Your task to perform on an android device: Clear the cart on target.com. Search for macbook pro on target.com, select the first entry, and add it to the cart. Image 0: 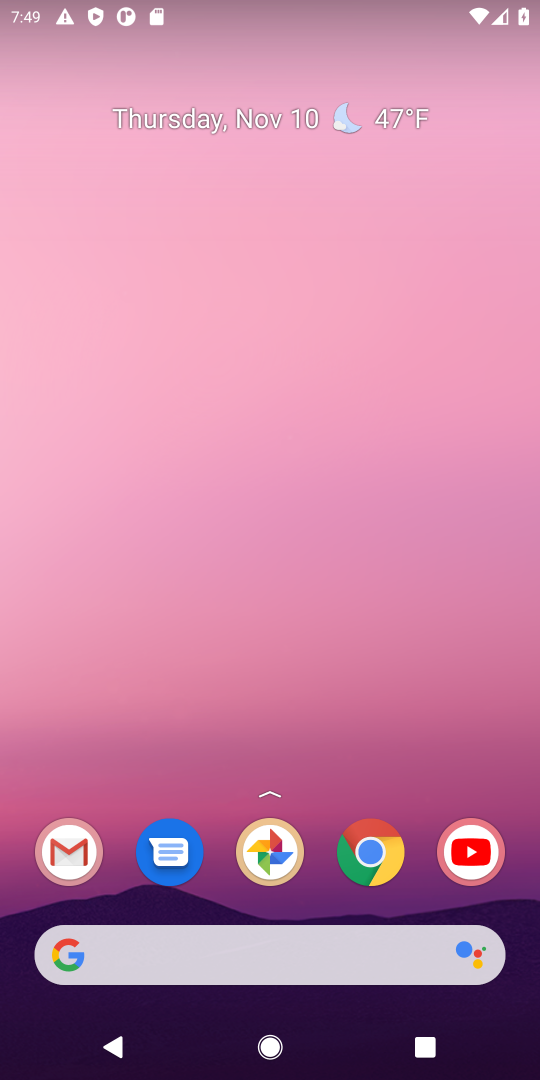
Step 0: click (367, 850)
Your task to perform on an android device: Clear the cart on target.com. Search for macbook pro on target.com, select the first entry, and add it to the cart. Image 1: 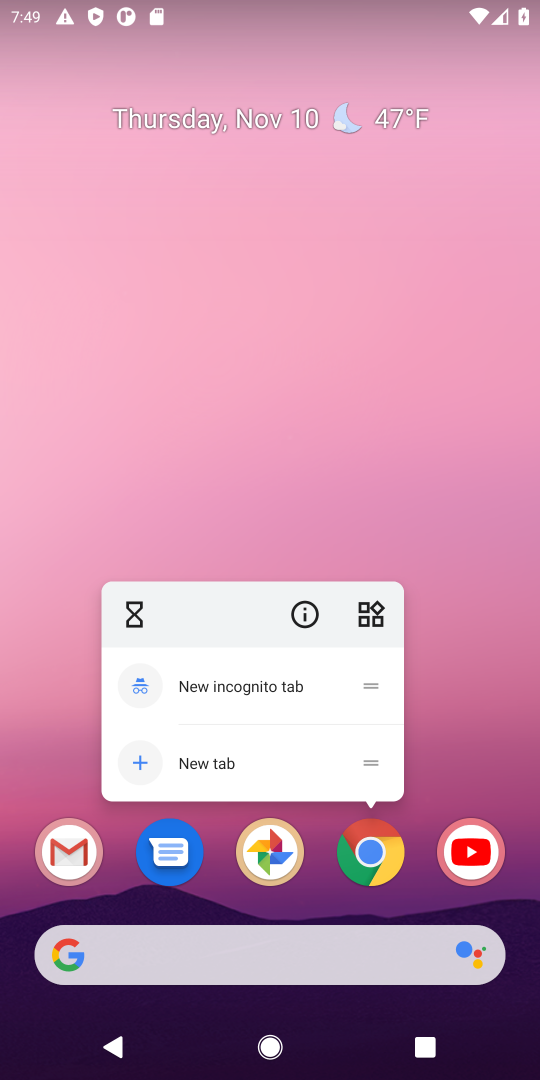
Step 1: click (355, 847)
Your task to perform on an android device: Clear the cart on target.com. Search for macbook pro on target.com, select the first entry, and add it to the cart. Image 2: 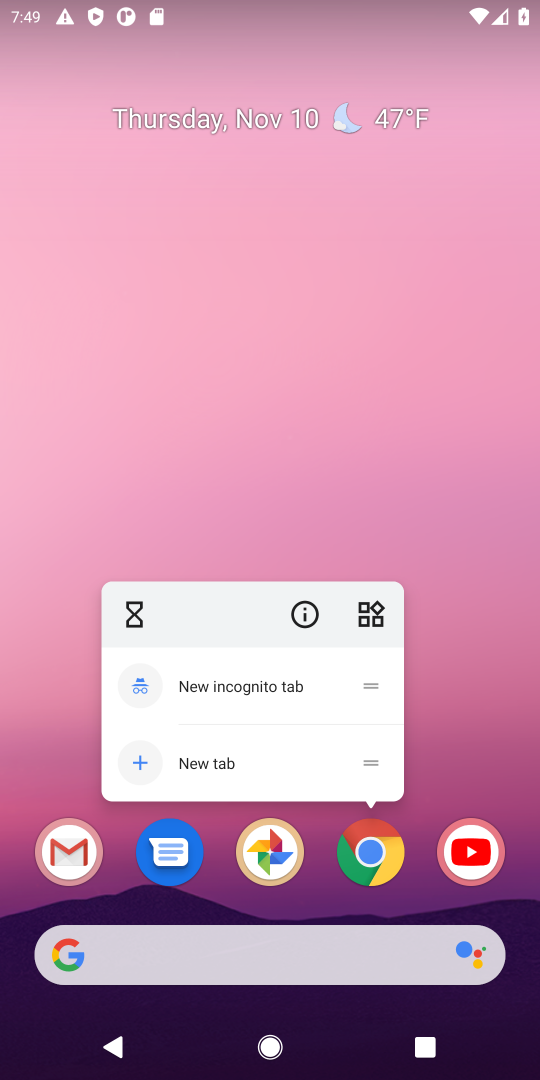
Step 2: click (372, 851)
Your task to perform on an android device: Clear the cart on target.com. Search for macbook pro on target.com, select the first entry, and add it to the cart. Image 3: 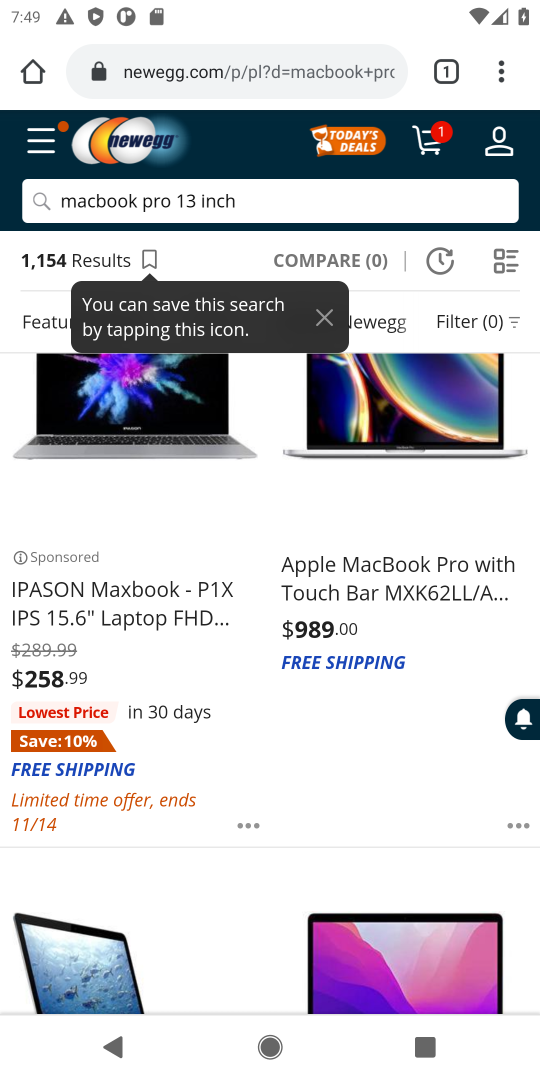
Step 3: click (284, 67)
Your task to perform on an android device: Clear the cart on target.com. Search for macbook pro on target.com, select the first entry, and add it to the cart. Image 4: 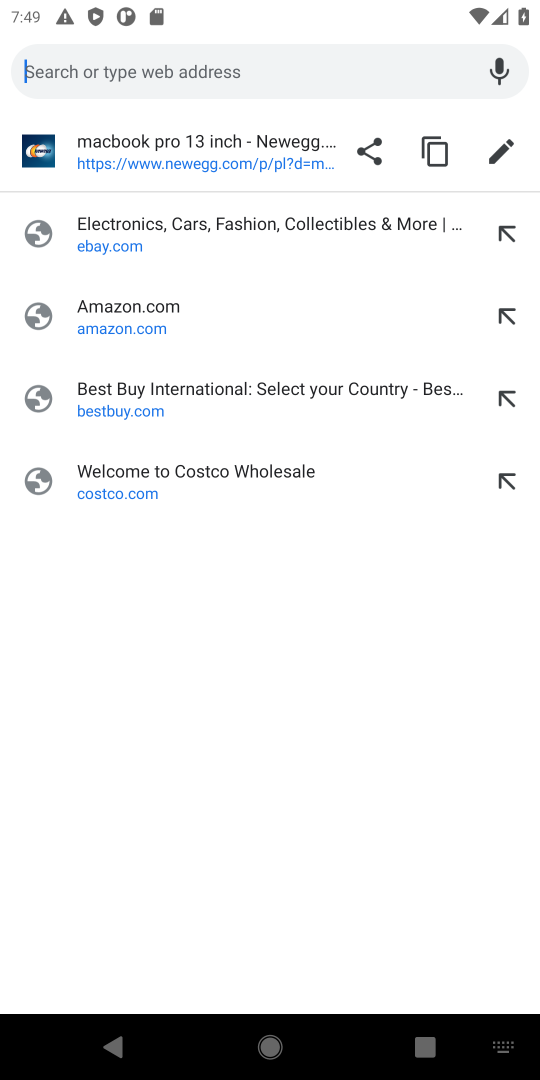
Step 4: type "target.com"
Your task to perform on an android device: Clear the cart on target.com. Search for macbook pro on target.com, select the first entry, and add it to the cart. Image 5: 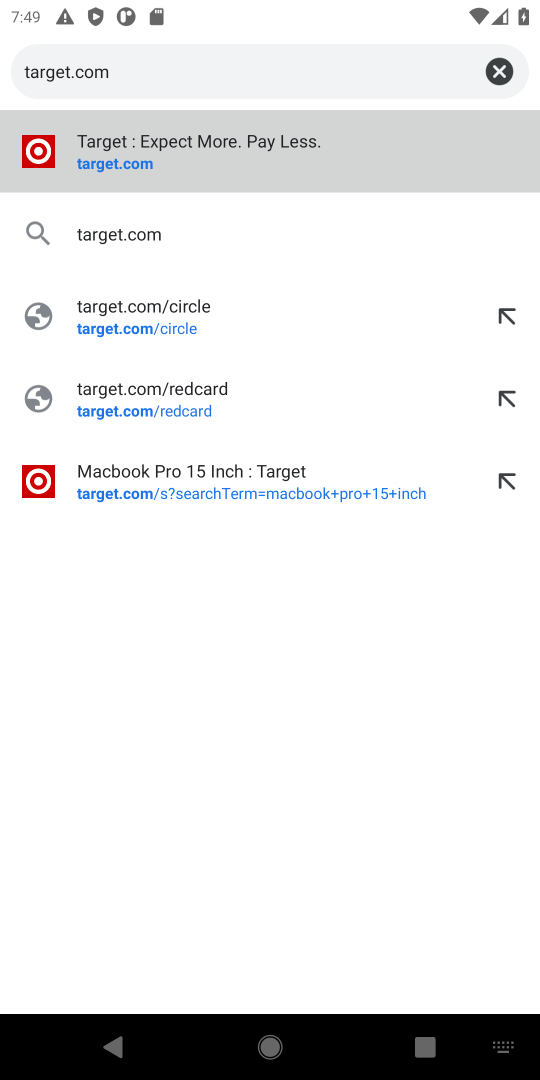
Step 5: press enter
Your task to perform on an android device: Clear the cart on target.com. Search for macbook pro on target.com, select the first entry, and add it to the cart. Image 6: 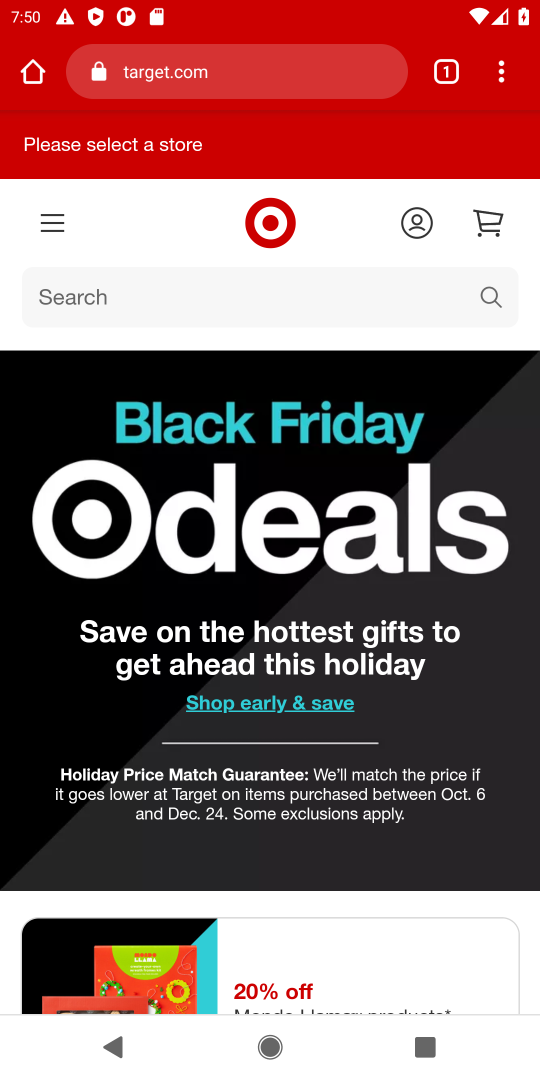
Step 6: click (178, 303)
Your task to perform on an android device: Clear the cart on target.com. Search for macbook pro on target.com, select the first entry, and add it to the cart. Image 7: 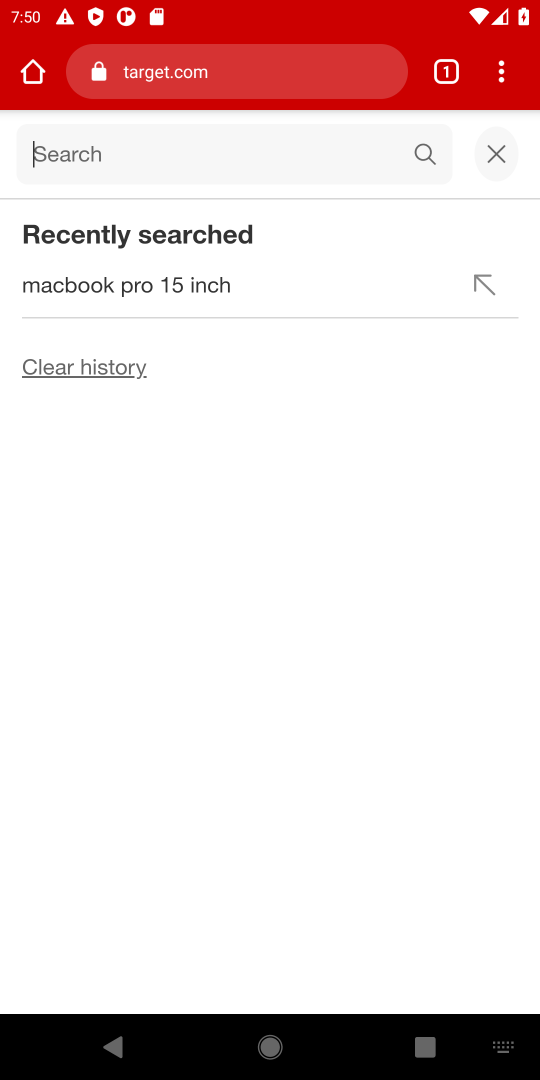
Step 7: type "macbook pro "
Your task to perform on an android device: Clear the cart on target.com. Search for macbook pro on target.com, select the first entry, and add it to the cart. Image 8: 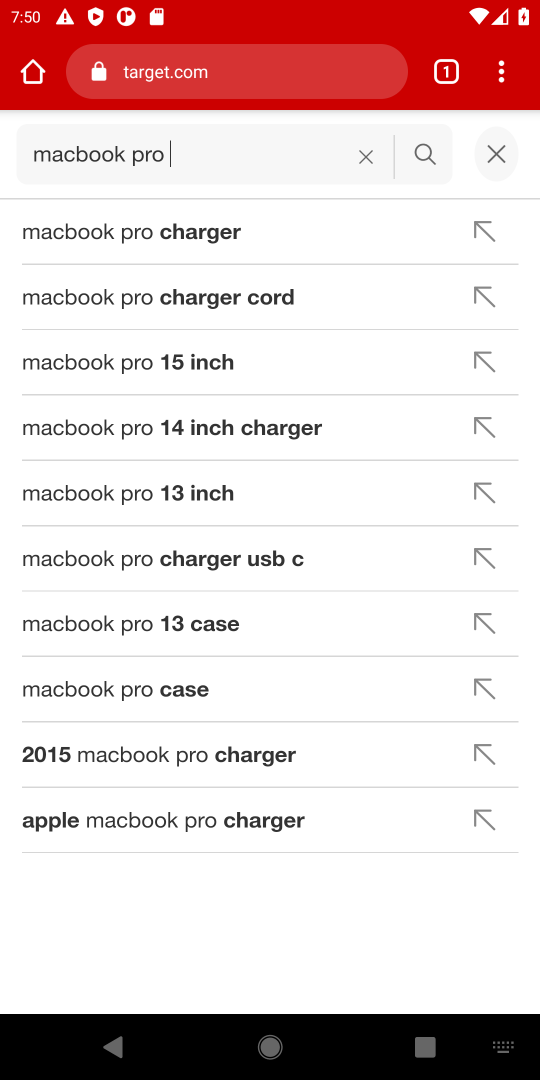
Step 8: press enter
Your task to perform on an android device: Clear the cart on target.com. Search for macbook pro on target.com, select the first entry, and add it to the cart. Image 9: 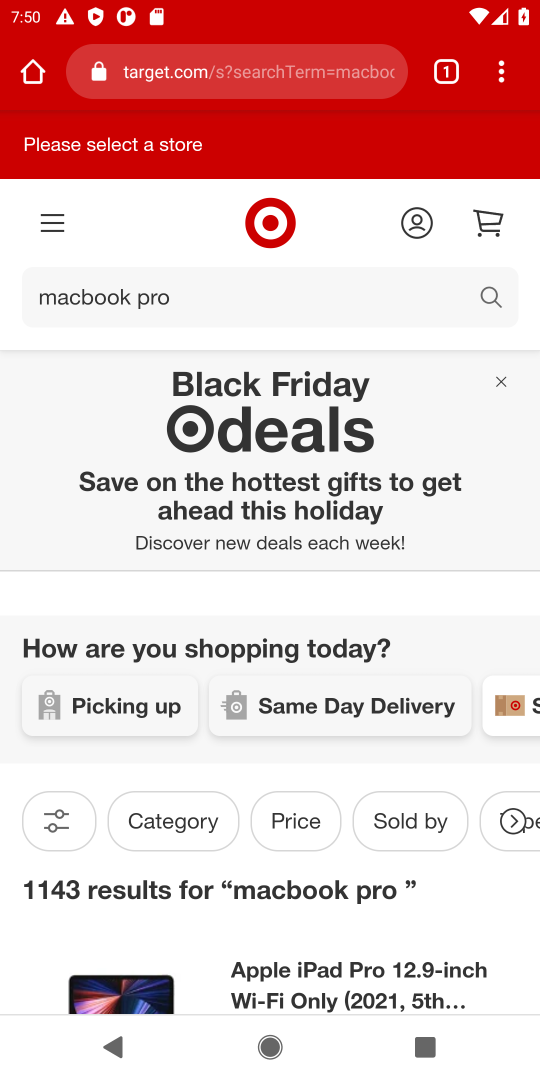
Step 9: task complete